Your task to perform on an android device: Go to ESPN.com Image 0: 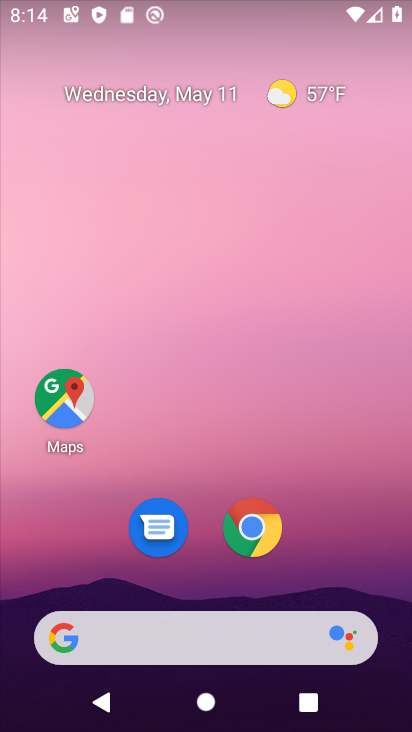
Step 0: click (268, 534)
Your task to perform on an android device: Go to ESPN.com Image 1: 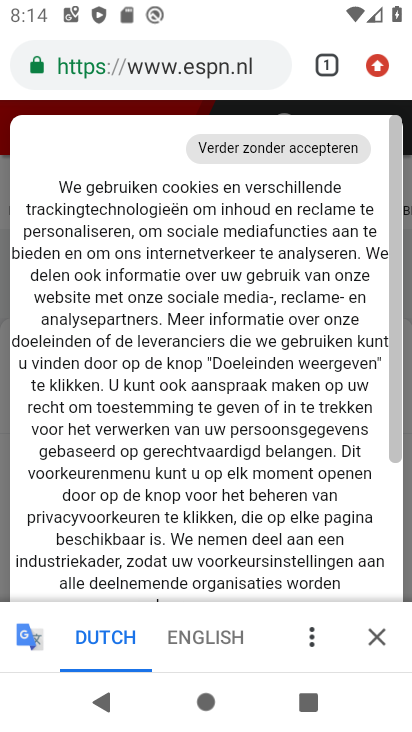
Step 1: task complete